Your task to perform on an android device: add a label to a message in the gmail app Image 0: 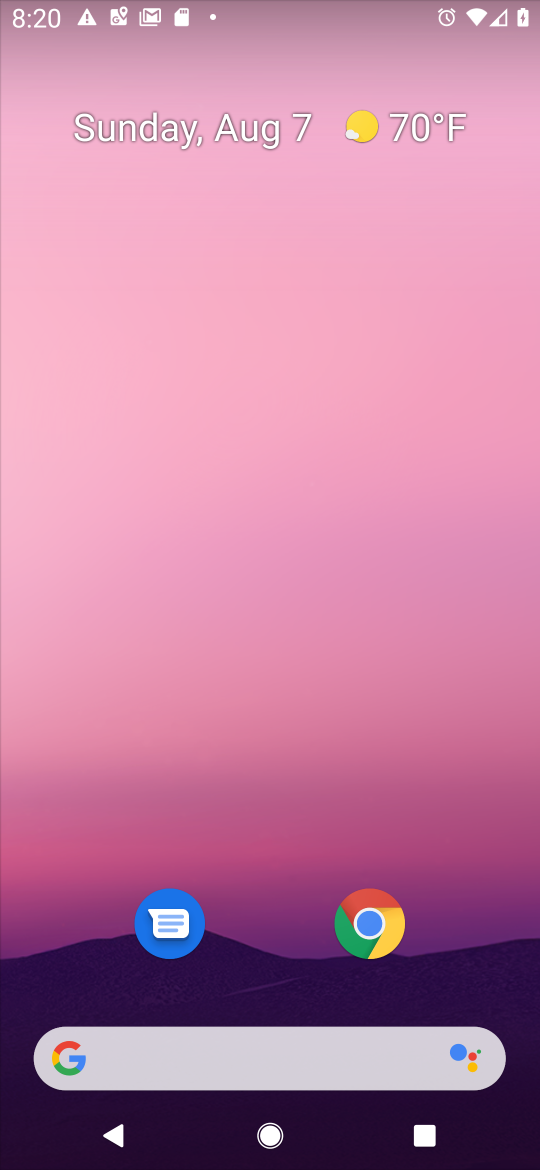
Step 0: drag from (453, 940) to (208, 136)
Your task to perform on an android device: add a label to a message in the gmail app Image 1: 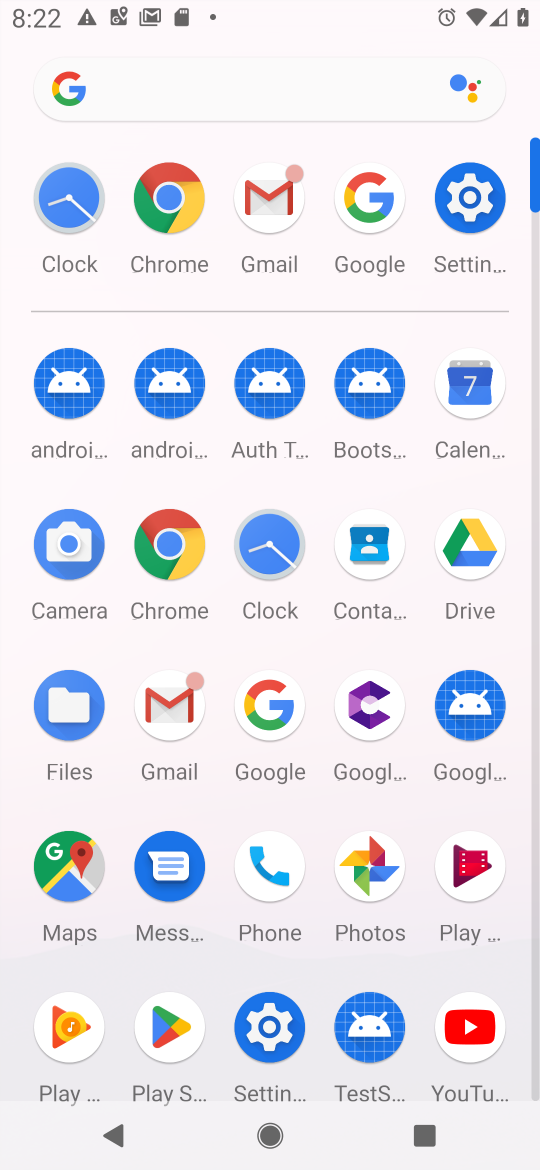
Step 1: click (155, 727)
Your task to perform on an android device: add a label to a message in the gmail app Image 2: 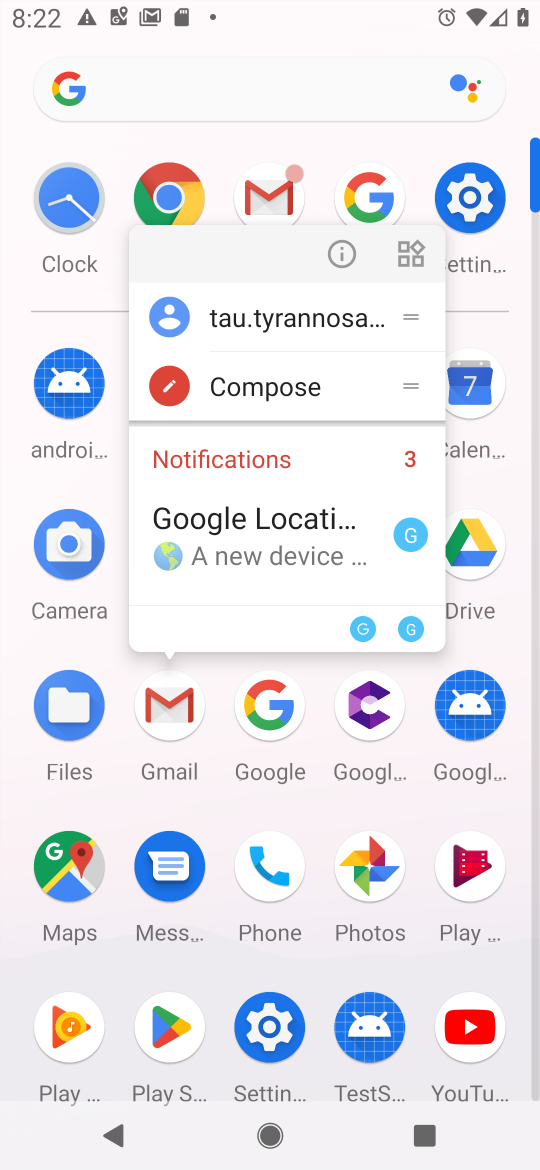
Step 2: click (155, 727)
Your task to perform on an android device: add a label to a message in the gmail app Image 3: 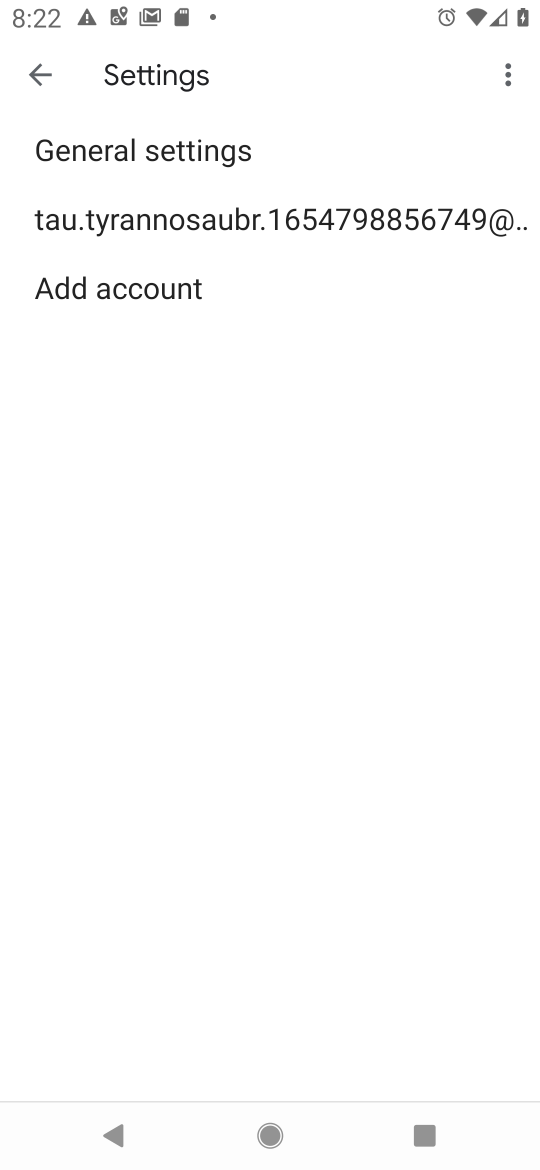
Step 3: task complete